Your task to perform on an android device: Go to eBay Image 0: 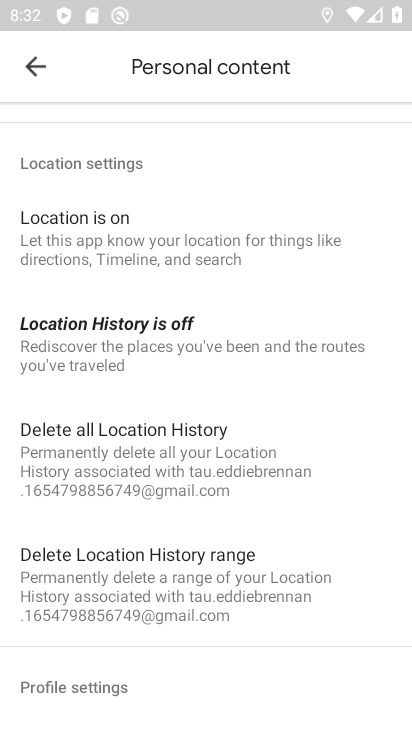
Step 0: press home button
Your task to perform on an android device: Go to eBay Image 1: 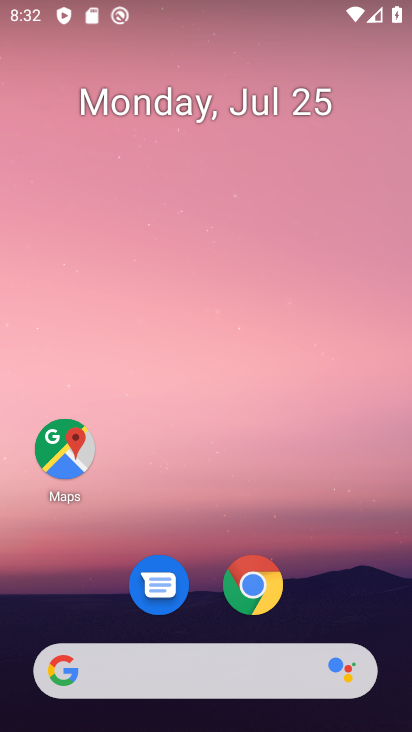
Step 1: click (241, 591)
Your task to perform on an android device: Go to eBay Image 2: 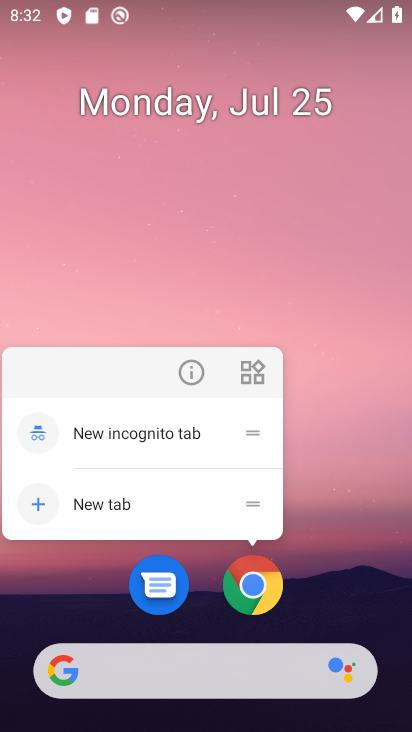
Step 2: click (263, 569)
Your task to perform on an android device: Go to eBay Image 3: 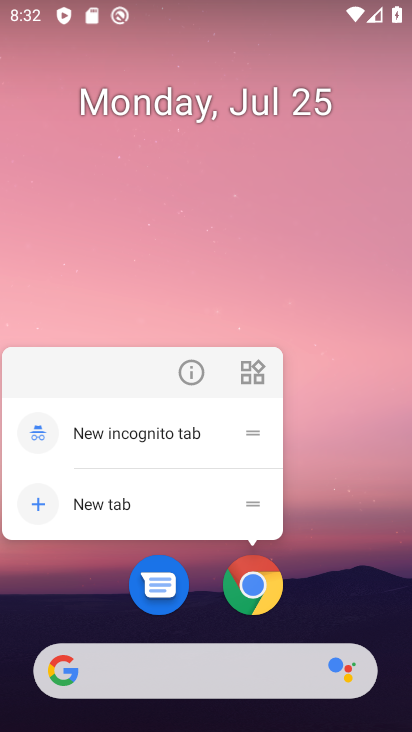
Step 3: click (253, 585)
Your task to perform on an android device: Go to eBay Image 4: 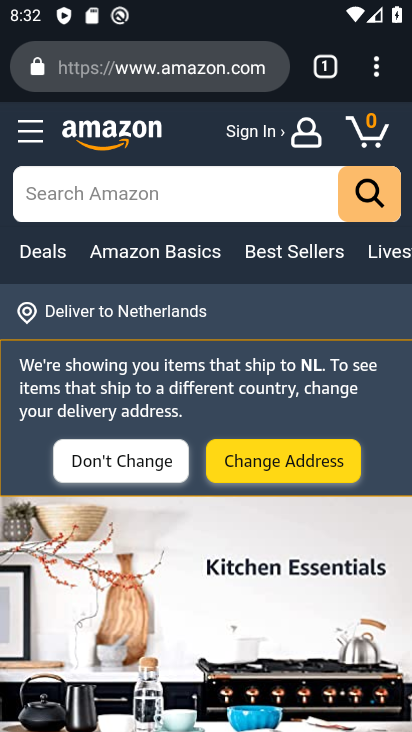
Step 4: click (381, 72)
Your task to perform on an android device: Go to eBay Image 5: 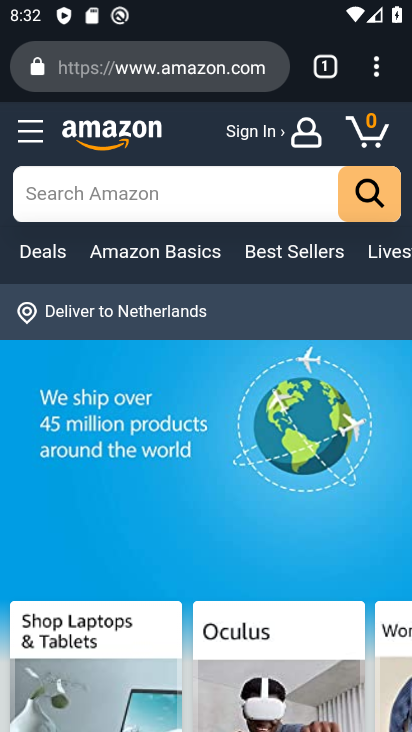
Step 5: drag from (370, 70) to (181, 138)
Your task to perform on an android device: Go to eBay Image 6: 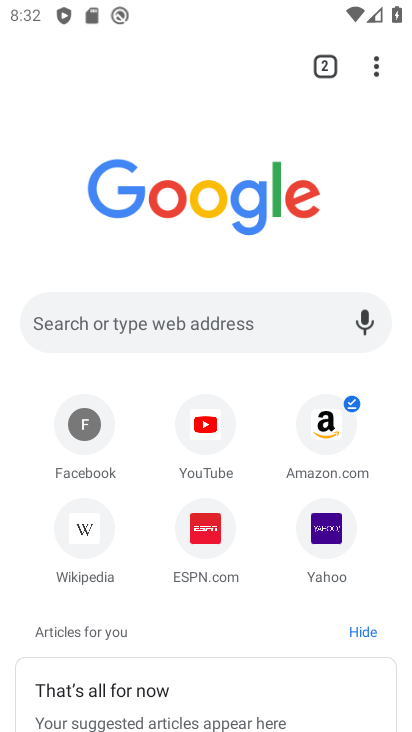
Step 6: click (146, 324)
Your task to perform on an android device: Go to eBay Image 7: 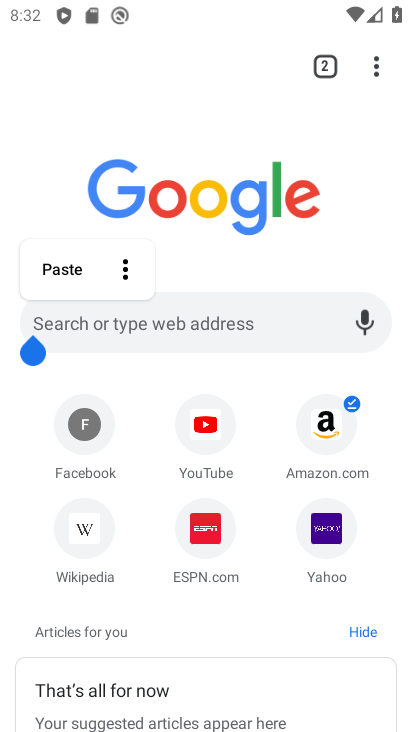
Step 7: type "ebay"
Your task to perform on an android device: Go to eBay Image 8: 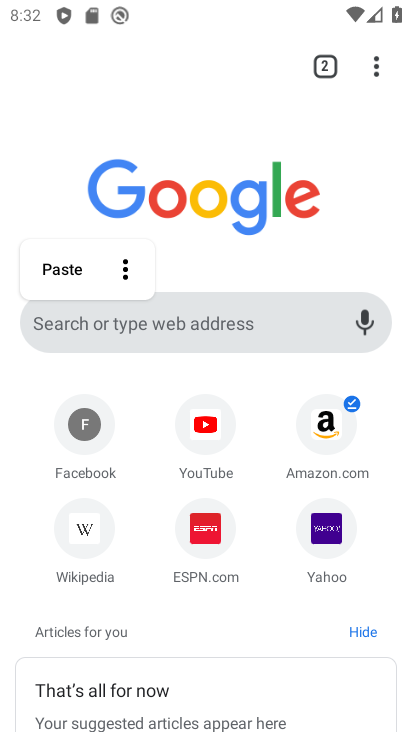
Step 8: click (158, 323)
Your task to perform on an android device: Go to eBay Image 9: 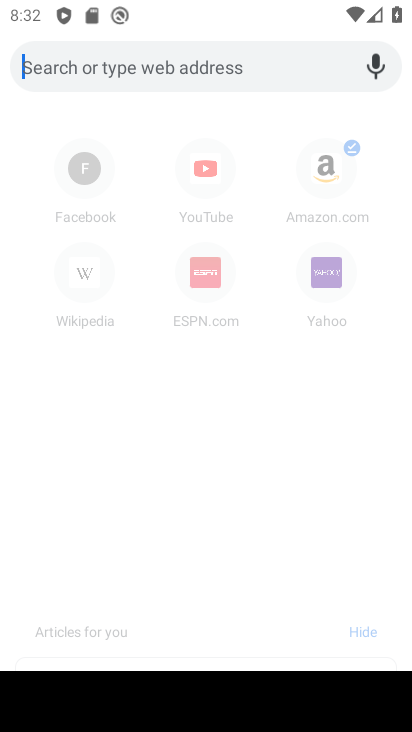
Step 9: type "ebay"
Your task to perform on an android device: Go to eBay Image 10: 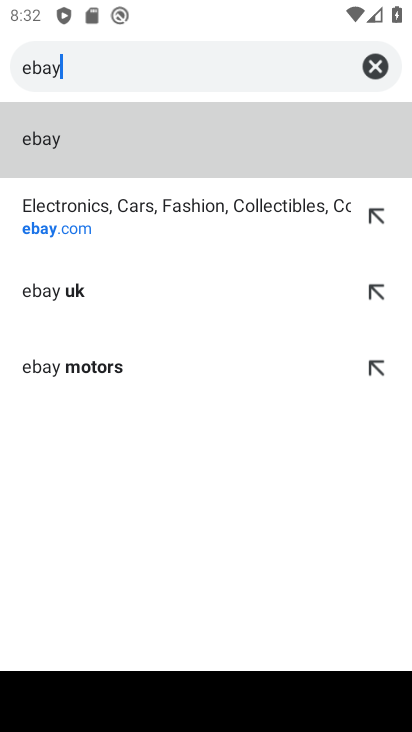
Step 10: click (79, 213)
Your task to perform on an android device: Go to eBay Image 11: 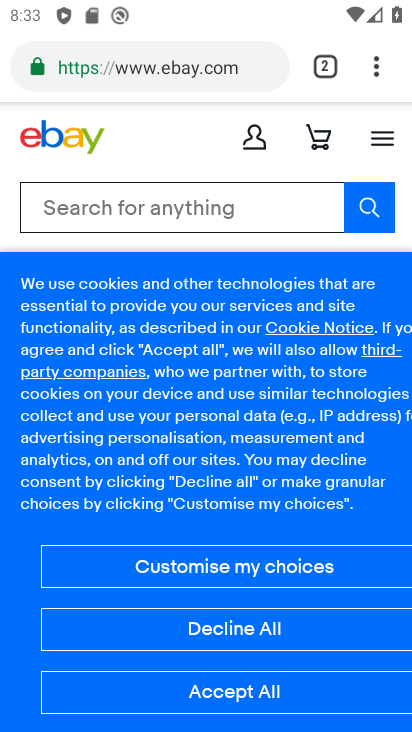
Step 11: click (281, 697)
Your task to perform on an android device: Go to eBay Image 12: 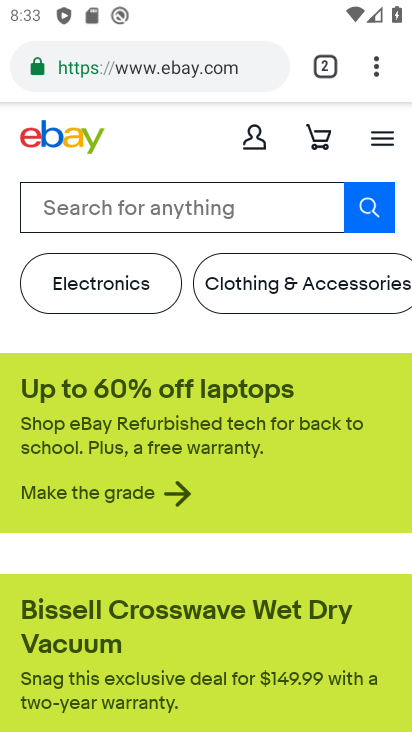
Step 12: task complete